Your task to perform on an android device: What's the weather today? Image 0: 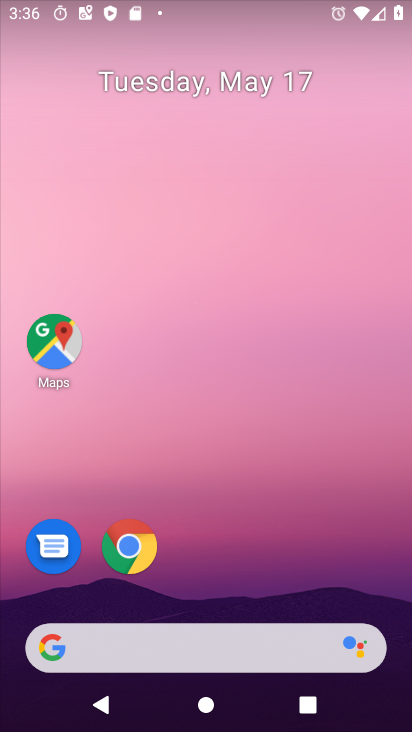
Step 0: drag from (191, 590) to (188, 386)
Your task to perform on an android device: What's the weather today? Image 1: 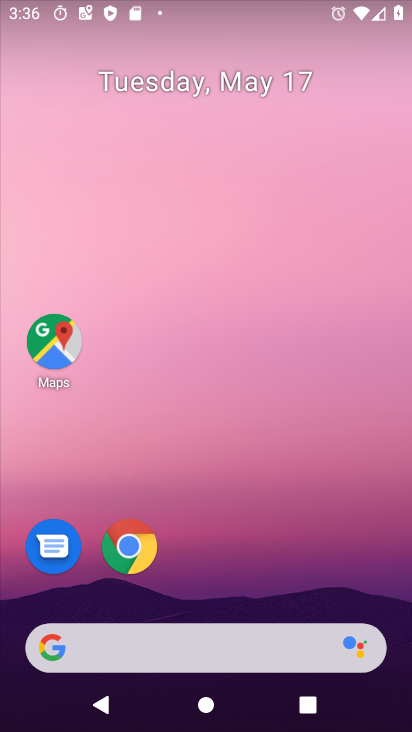
Step 1: drag from (195, 554) to (213, 182)
Your task to perform on an android device: What's the weather today? Image 2: 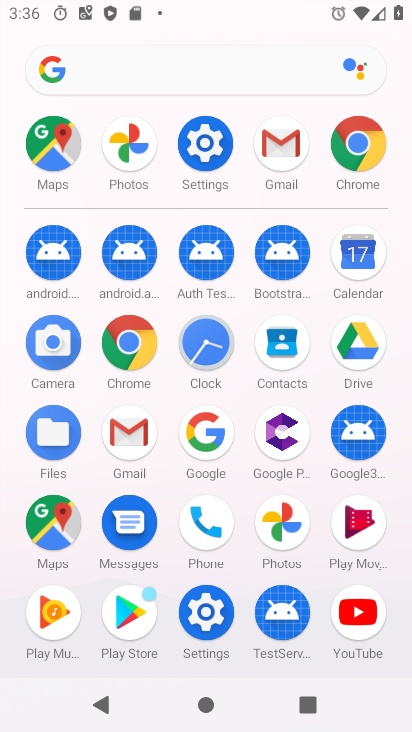
Step 2: click (196, 440)
Your task to perform on an android device: What's the weather today? Image 3: 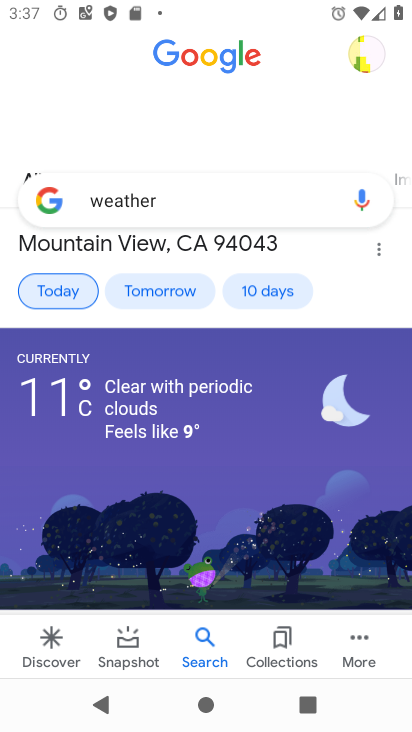
Step 3: task complete